Your task to perform on an android device: When is my next appointment? Image 0: 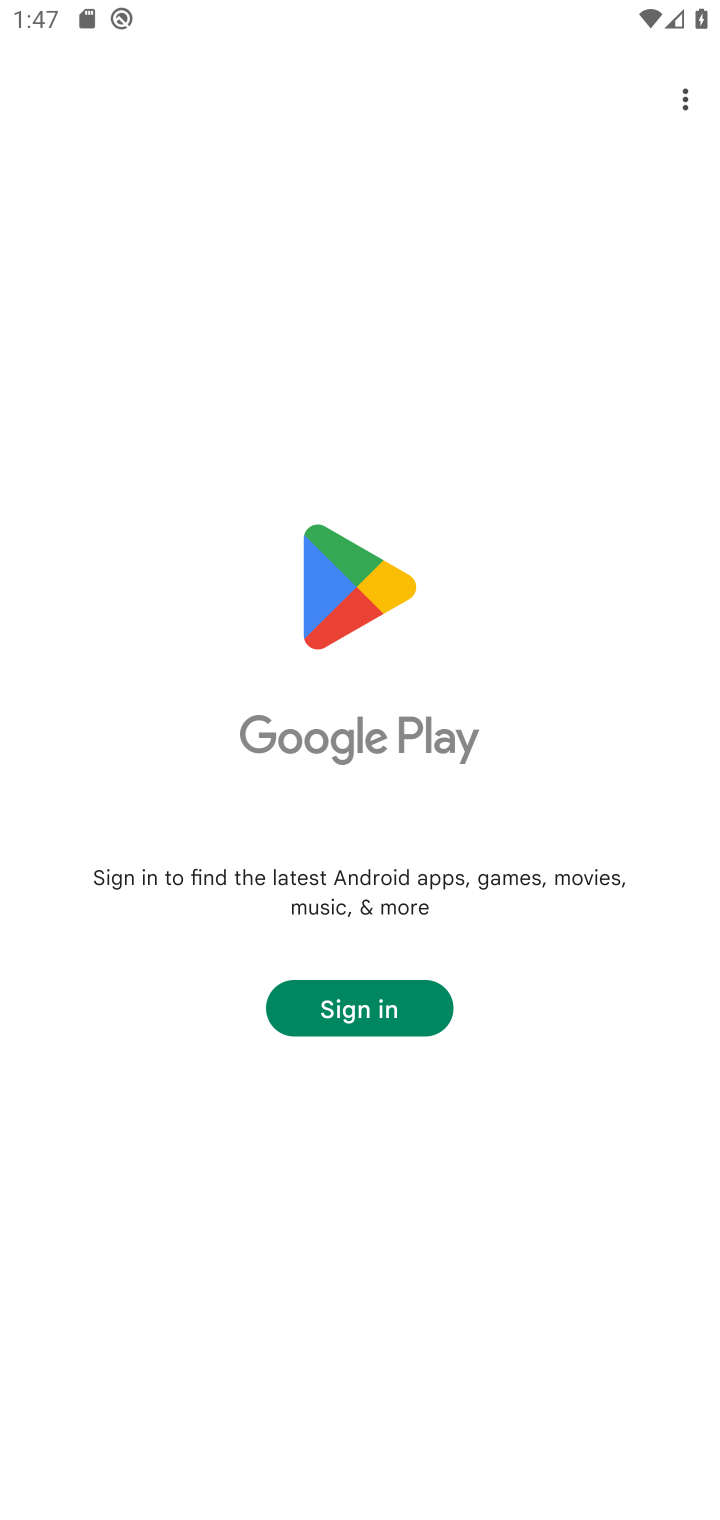
Step 0: press home button
Your task to perform on an android device: When is my next appointment? Image 1: 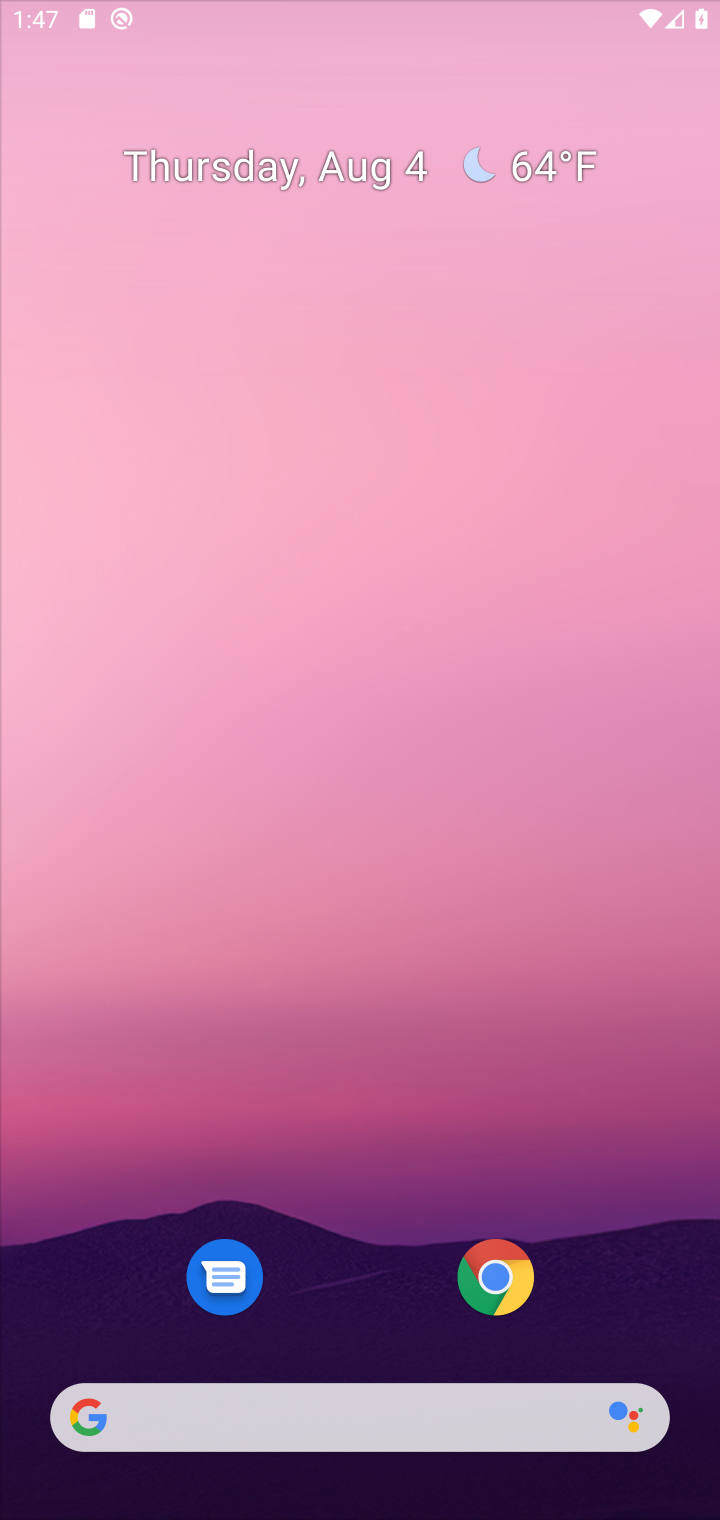
Step 1: drag from (383, 1273) to (413, 194)
Your task to perform on an android device: When is my next appointment? Image 2: 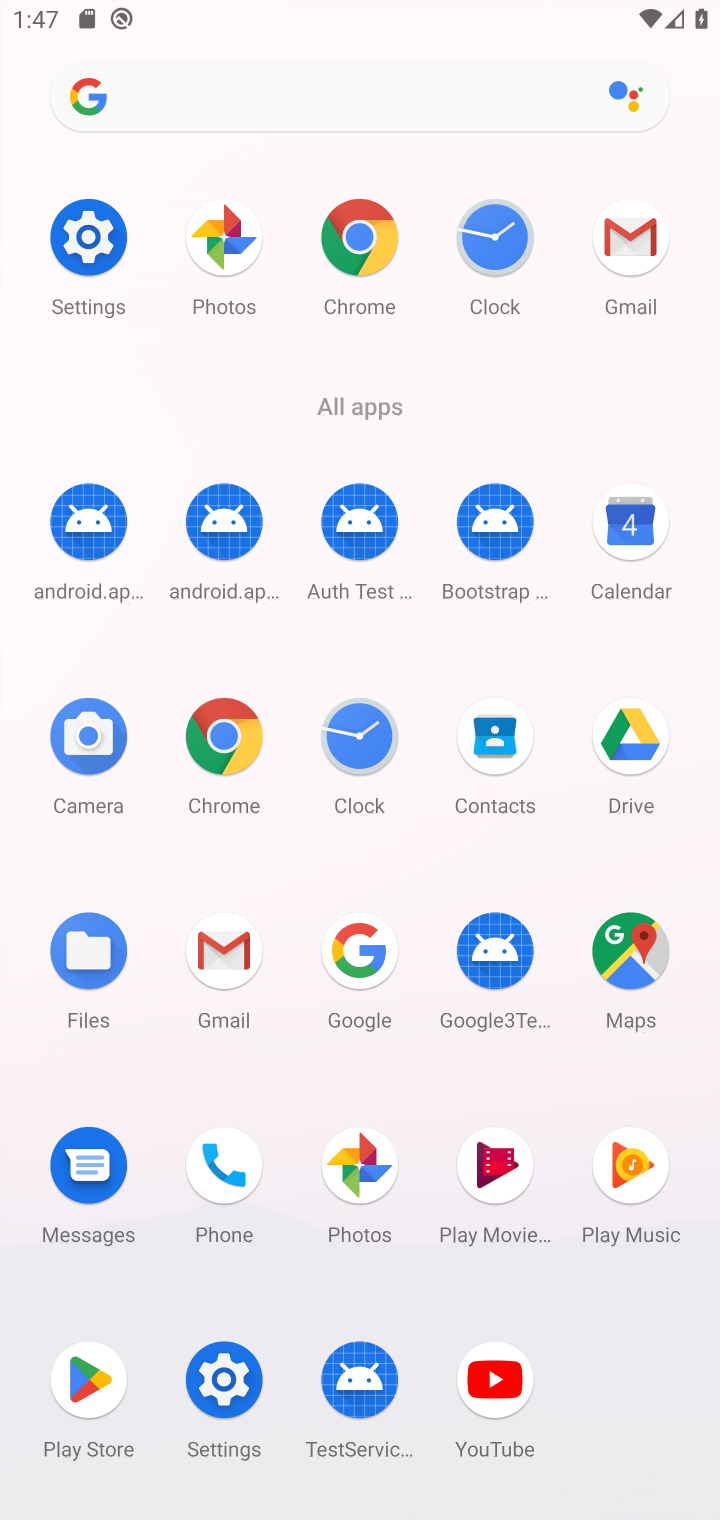
Step 2: click (648, 541)
Your task to perform on an android device: When is my next appointment? Image 3: 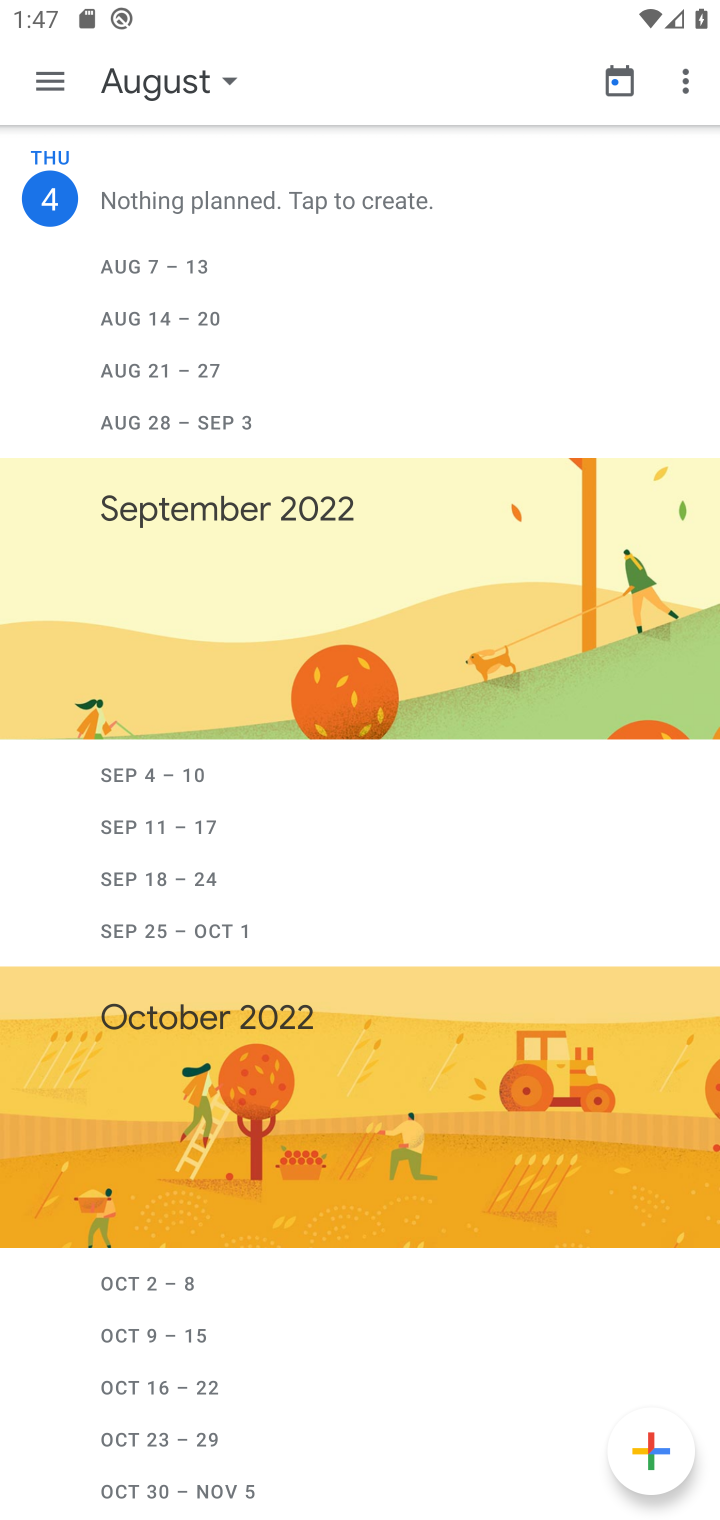
Step 3: click (68, 82)
Your task to perform on an android device: When is my next appointment? Image 4: 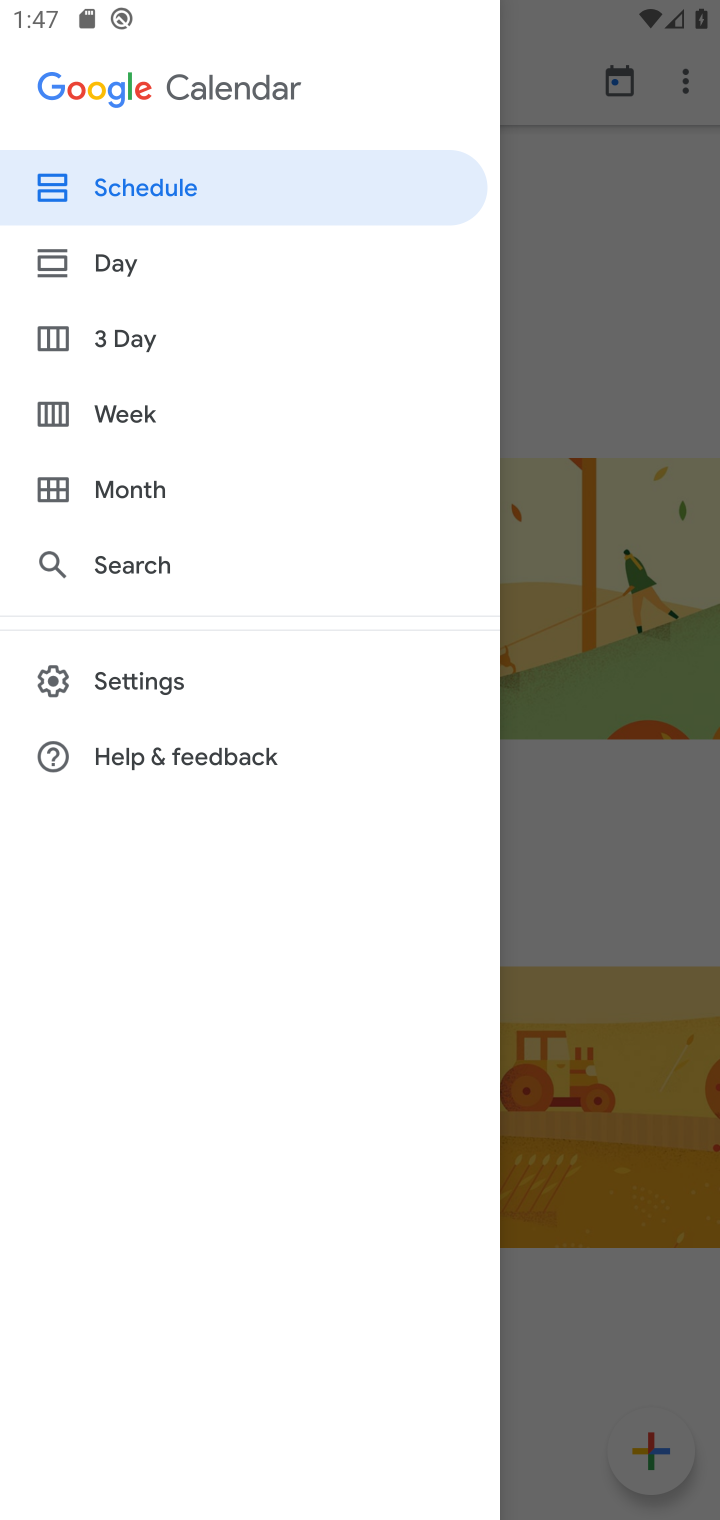
Step 4: click (140, 490)
Your task to perform on an android device: When is my next appointment? Image 5: 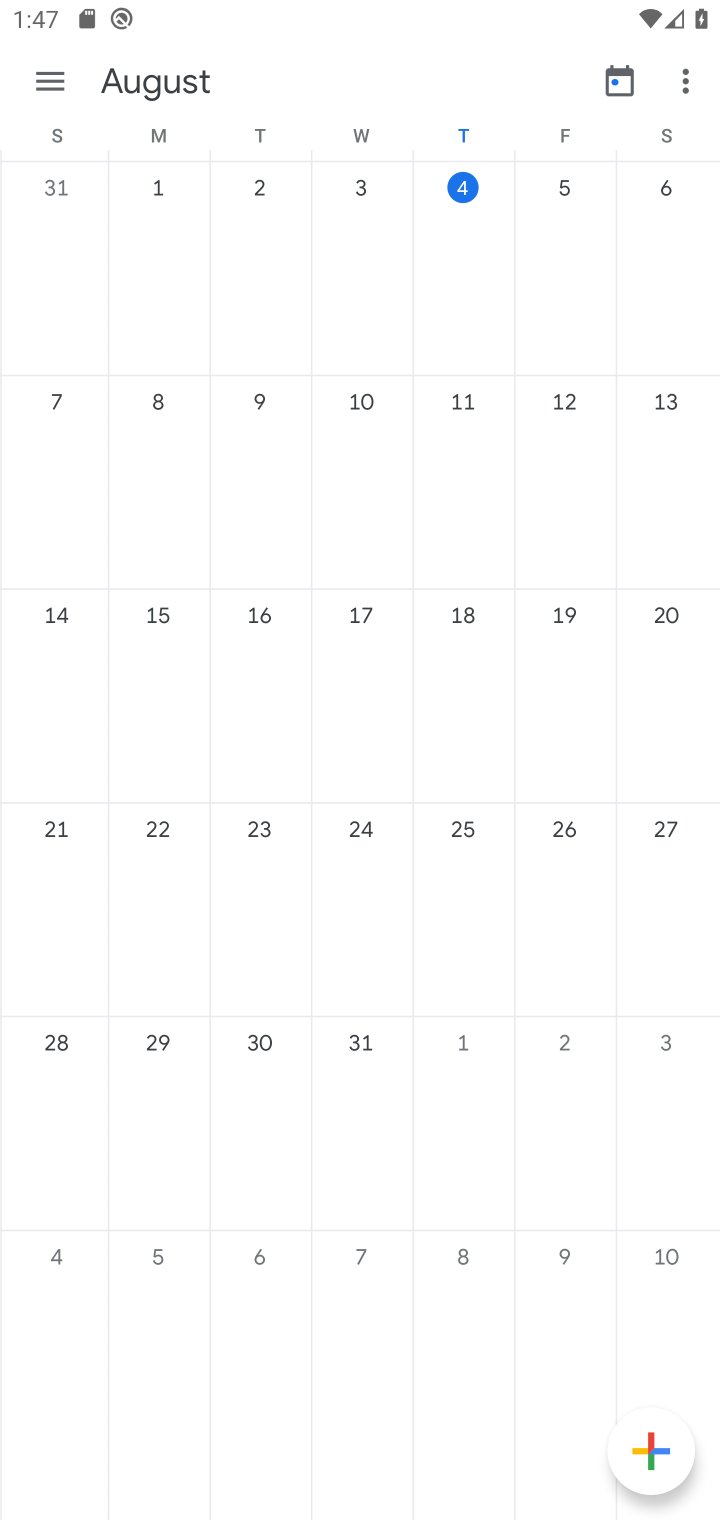
Step 5: click (560, 202)
Your task to perform on an android device: When is my next appointment? Image 6: 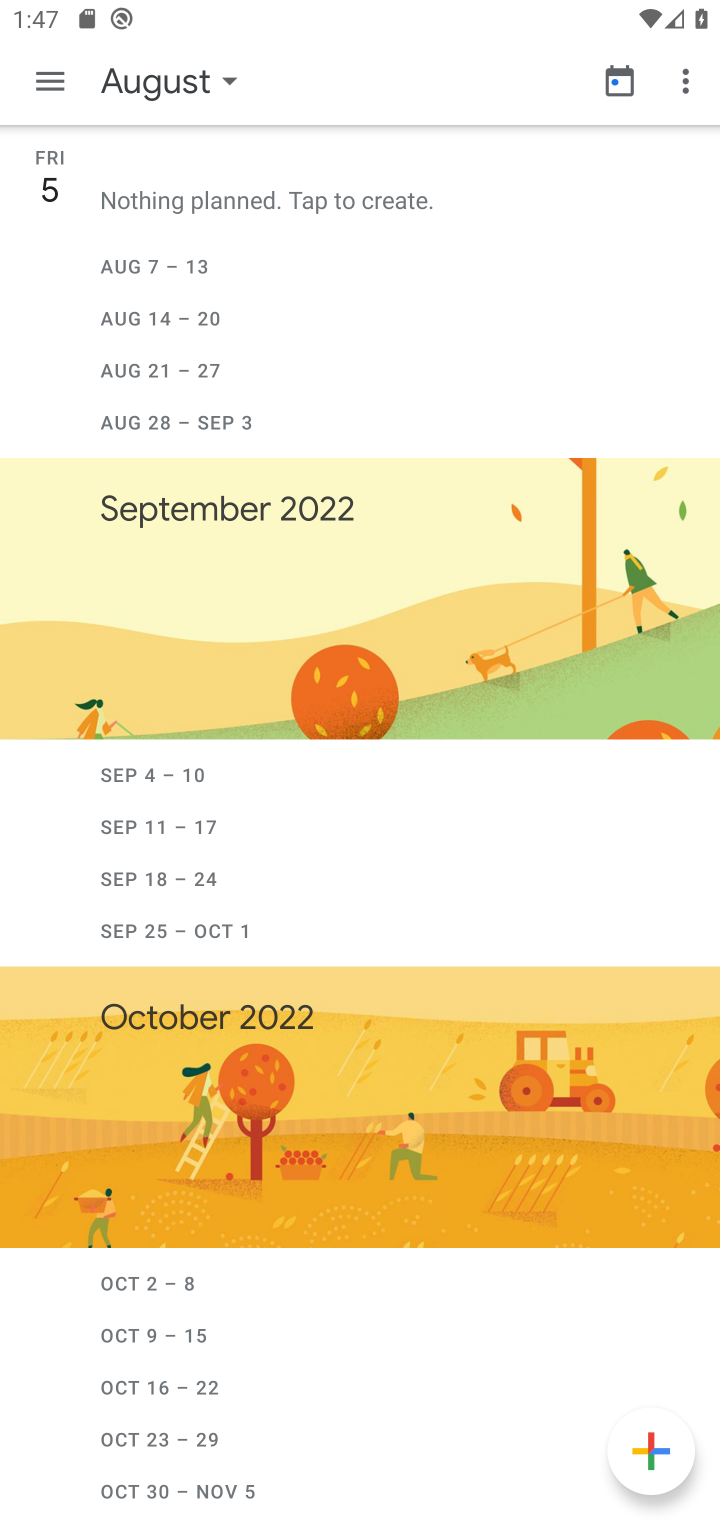
Step 6: task complete